Your task to perform on an android device: When is my next appointment? Image 0: 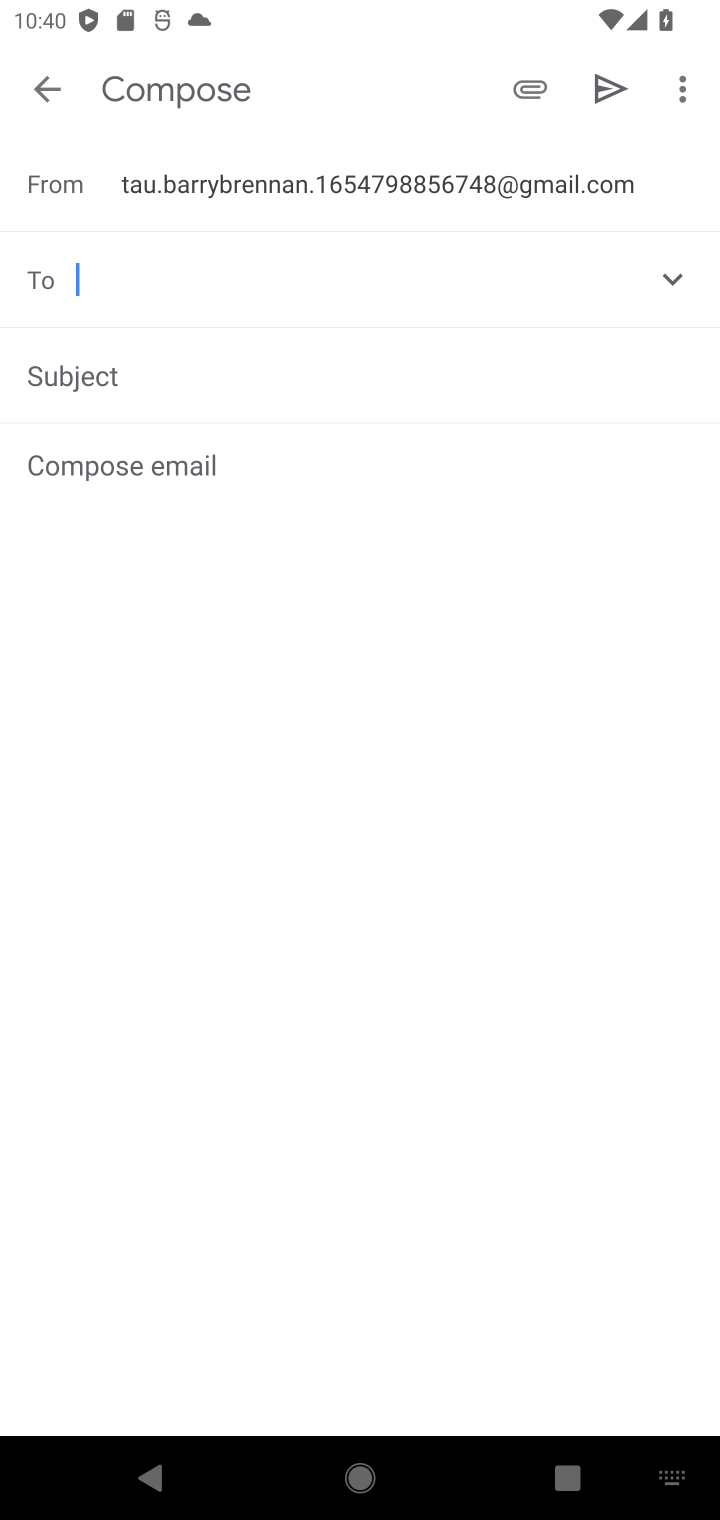
Step 0: press home button
Your task to perform on an android device: When is my next appointment? Image 1: 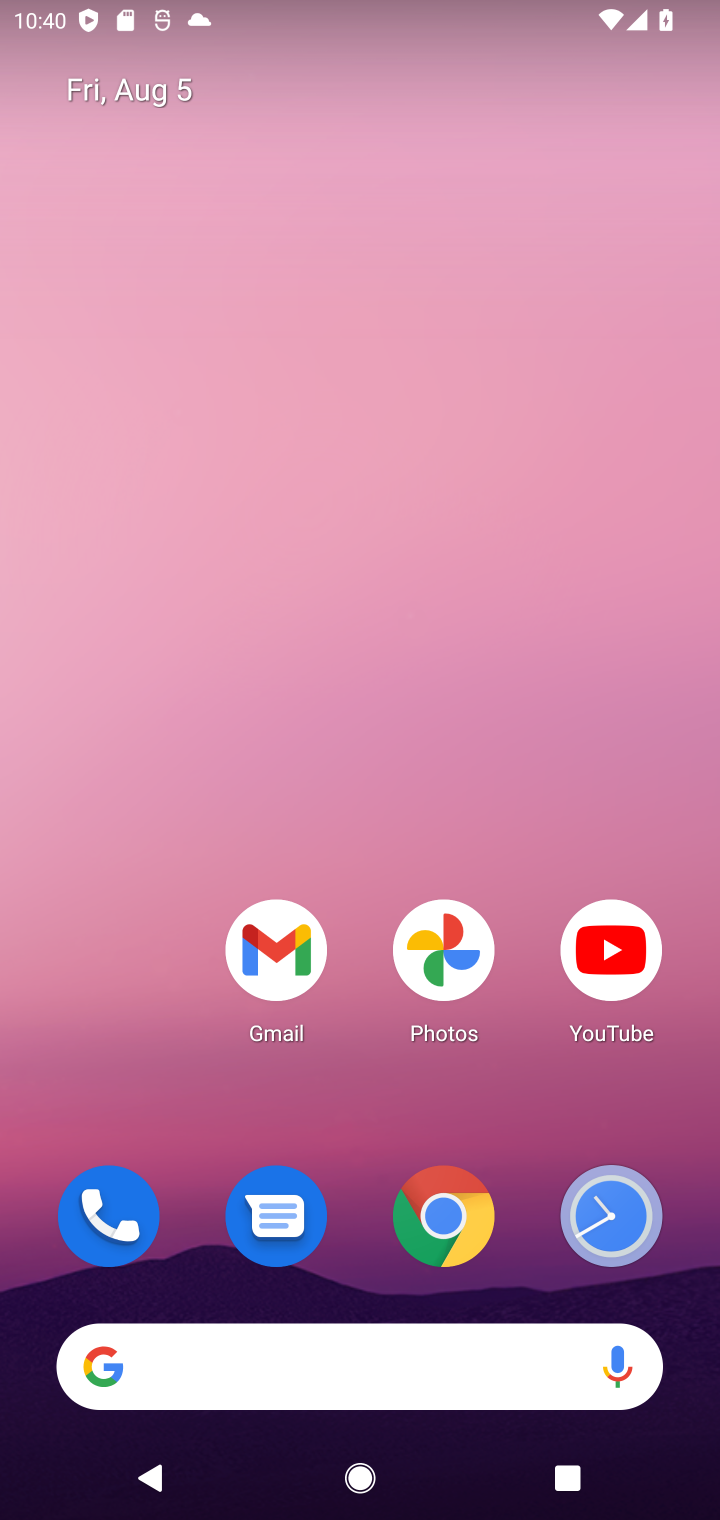
Step 1: drag from (345, 1363) to (370, 76)
Your task to perform on an android device: When is my next appointment? Image 2: 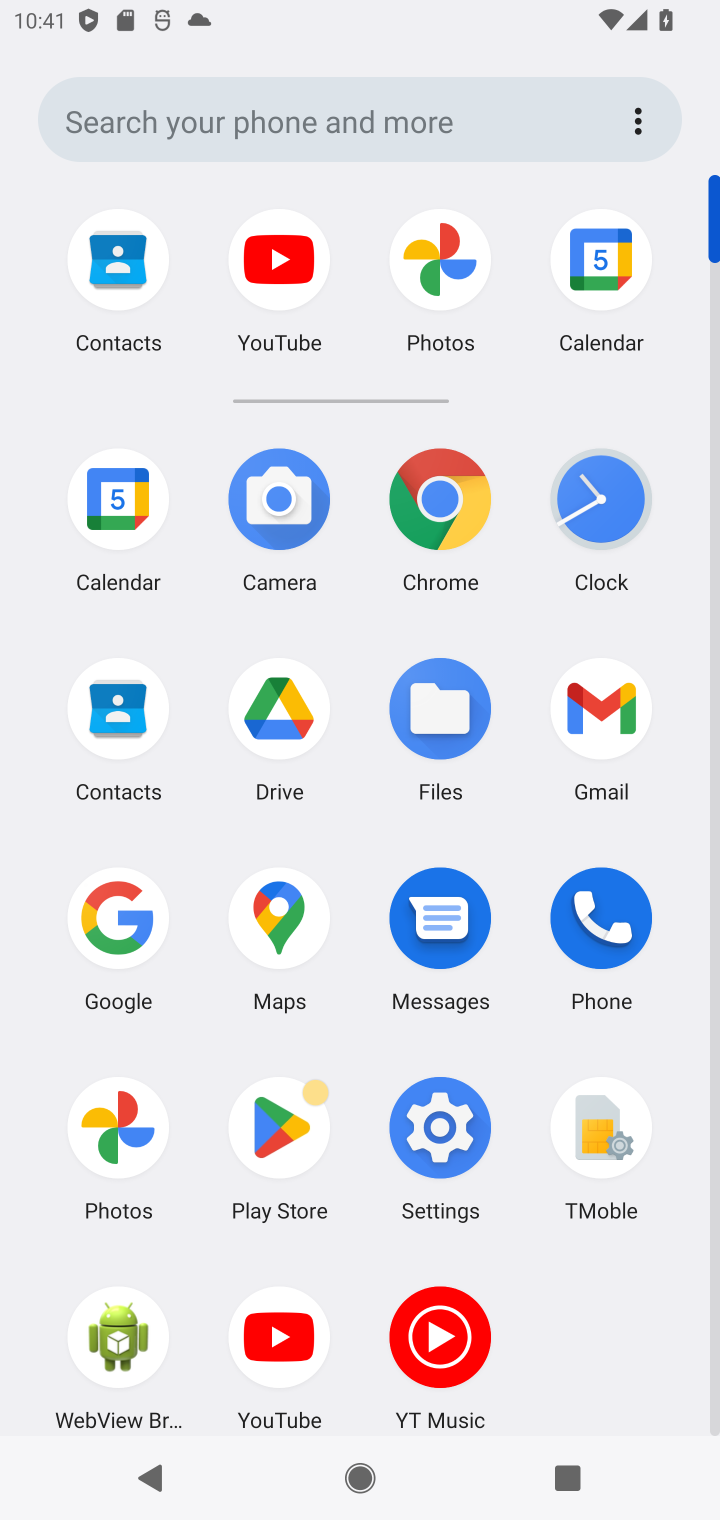
Step 2: click (96, 505)
Your task to perform on an android device: When is my next appointment? Image 3: 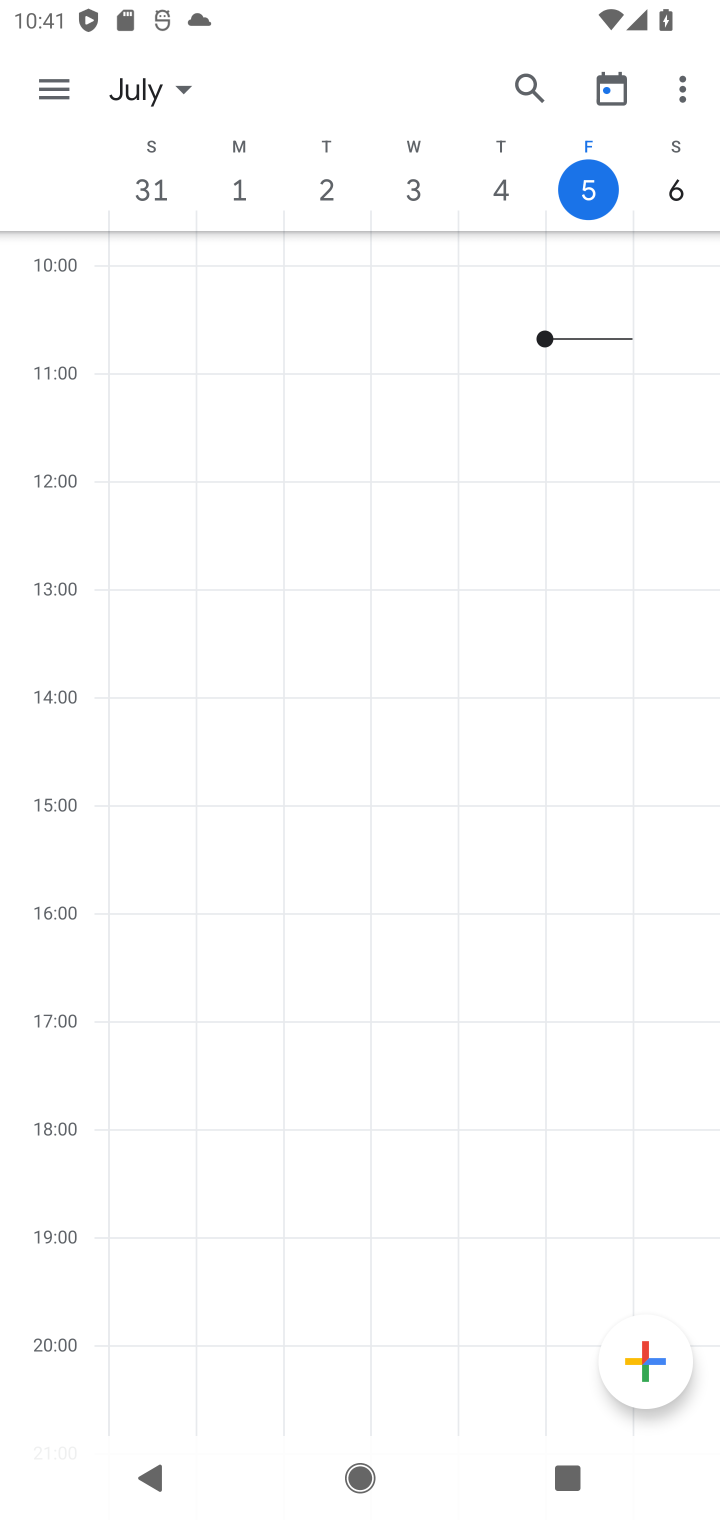
Step 3: click (180, 80)
Your task to perform on an android device: When is my next appointment? Image 4: 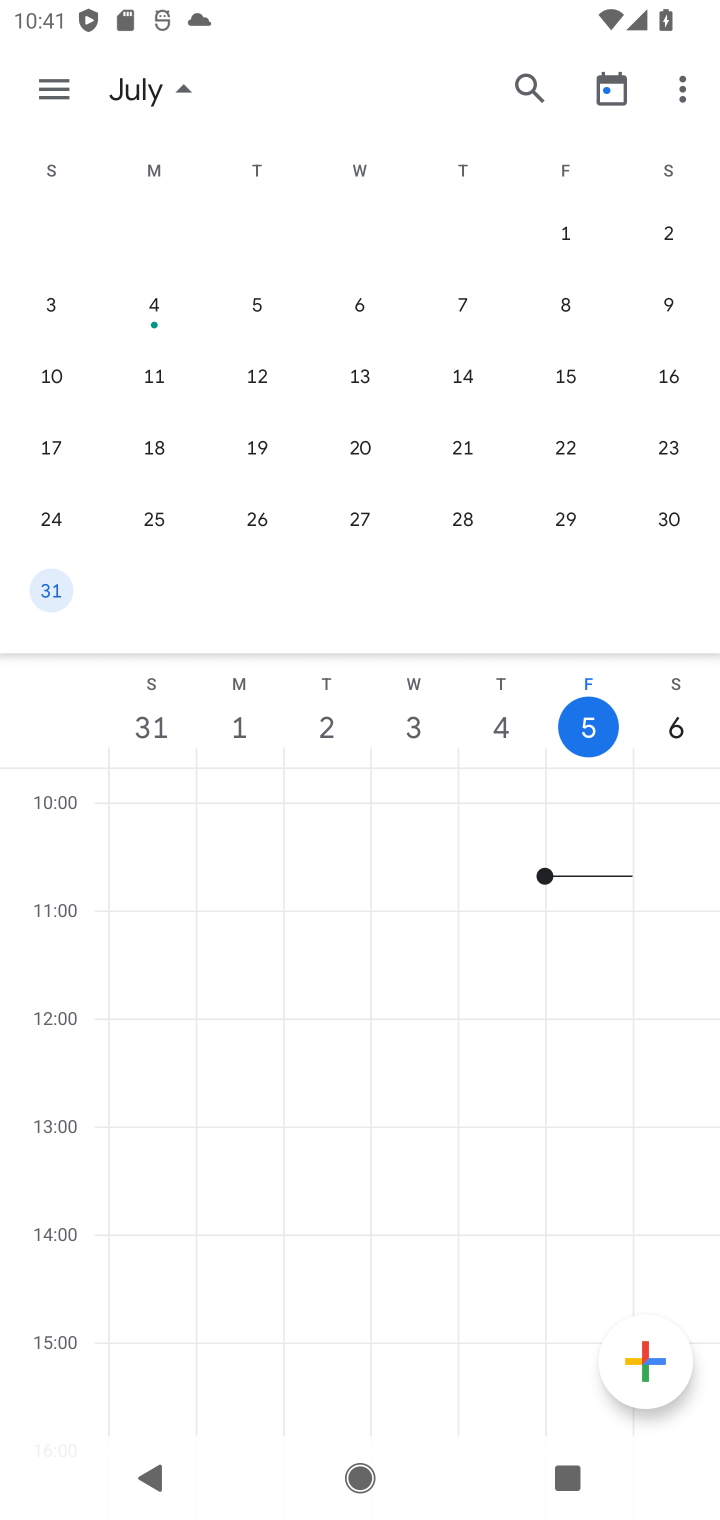
Step 4: drag from (698, 355) to (0, 363)
Your task to perform on an android device: When is my next appointment? Image 5: 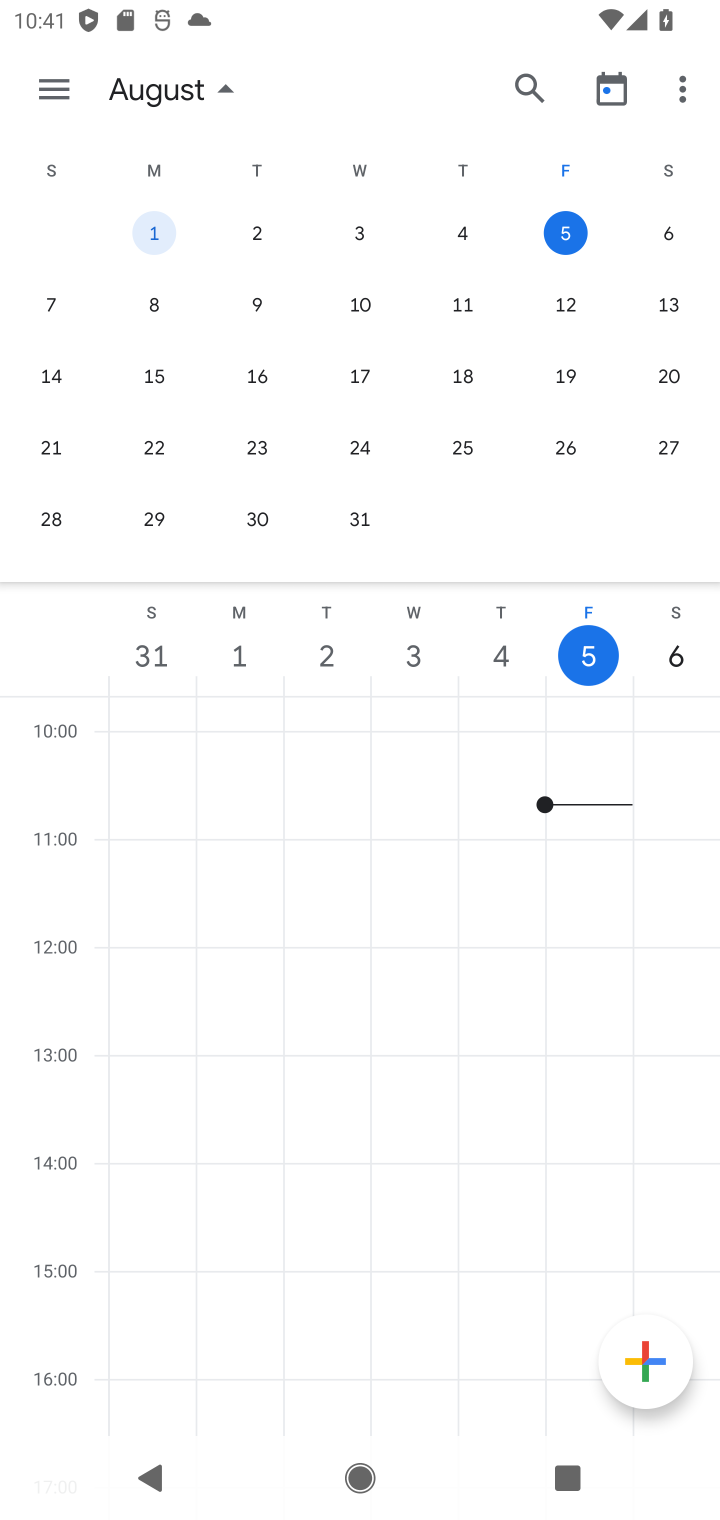
Step 5: click (662, 220)
Your task to perform on an android device: When is my next appointment? Image 6: 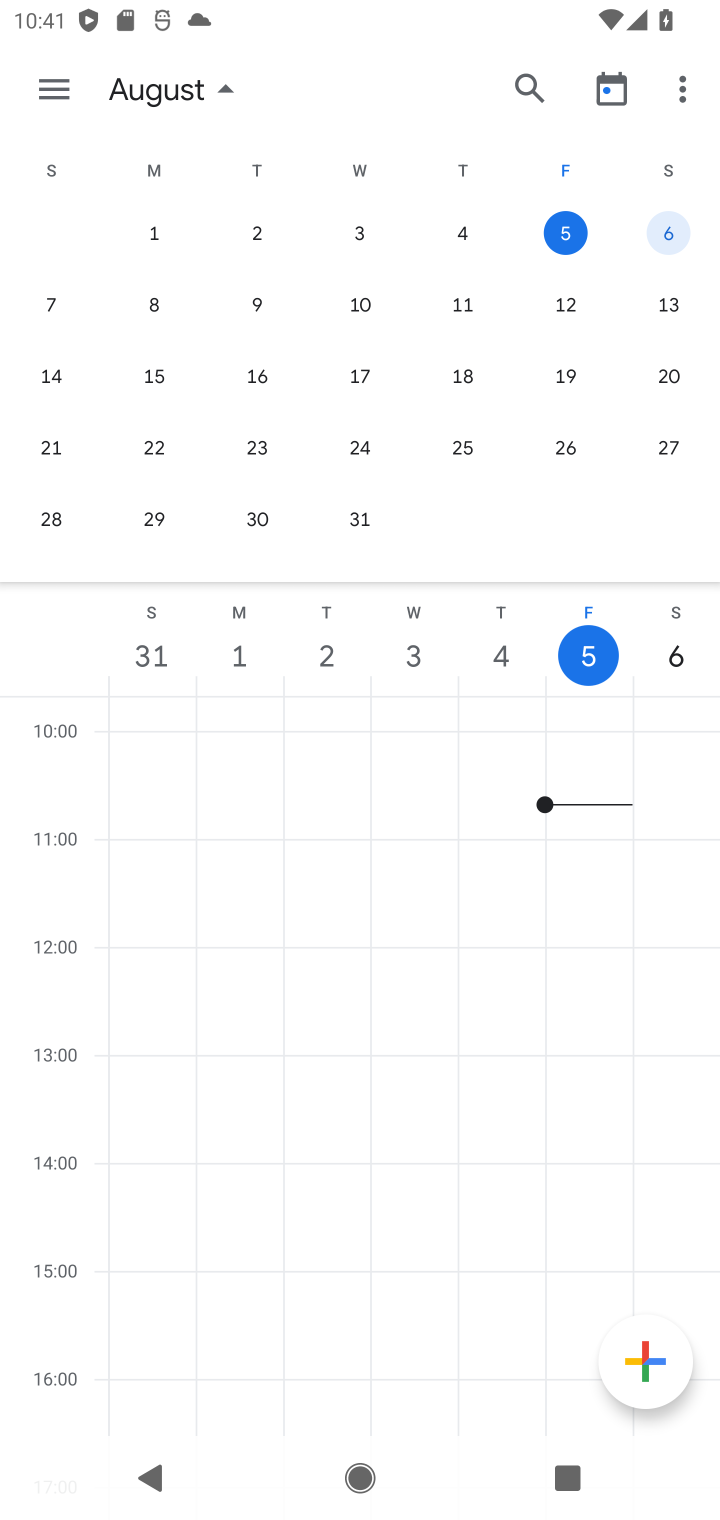
Step 6: task complete